Your task to perform on an android device: View the shopping cart on ebay.com. Add "corsair k70" to the cart on ebay.com Image 0: 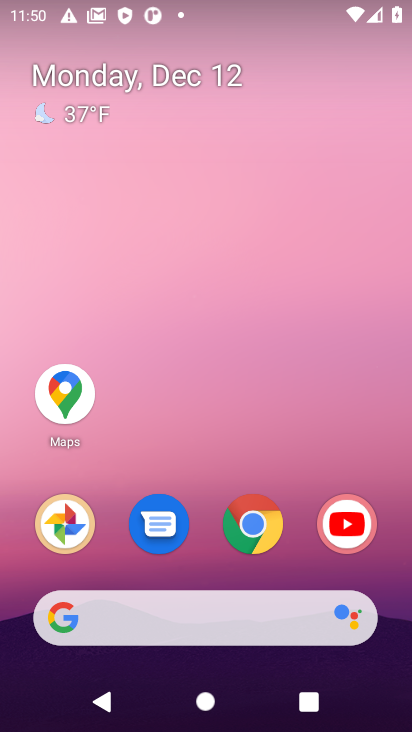
Step 0: click (257, 528)
Your task to perform on an android device: View the shopping cart on ebay.com. Add "corsair k70" to the cart on ebay.com Image 1: 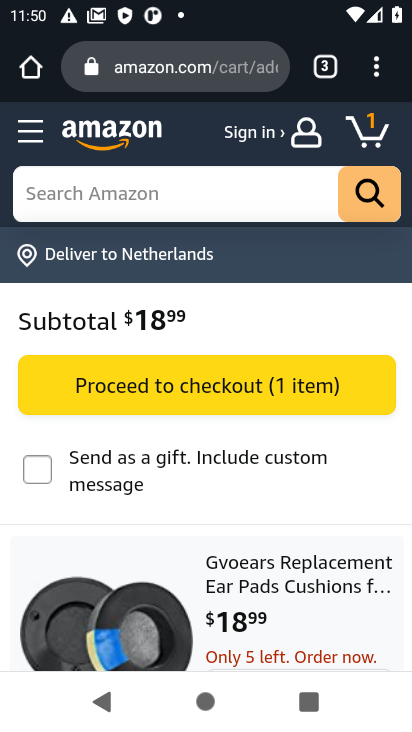
Step 1: click (151, 66)
Your task to perform on an android device: View the shopping cart on ebay.com. Add "corsair k70" to the cart on ebay.com Image 2: 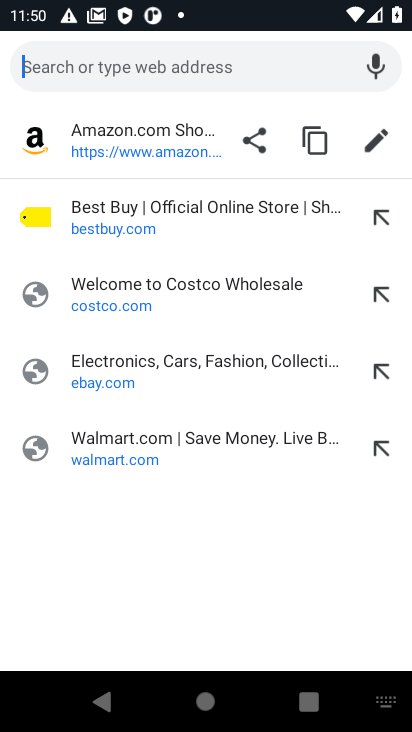
Step 2: click (92, 387)
Your task to perform on an android device: View the shopping cart on ebay.com. Add "corsair k70" to the cart on ebay.com Image 3: 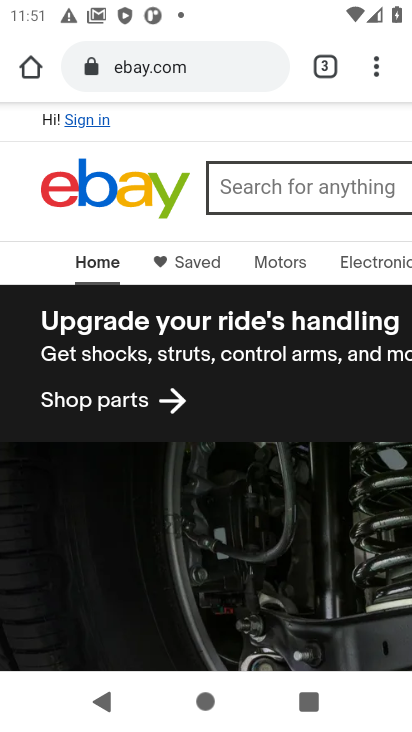
Step 3: drag from (365, 147) to (10, 166)
Your task to perform on an android device: View the shopping cart on ebay.com. Add "corsair k70" to the cart on ebay.com Image 4: 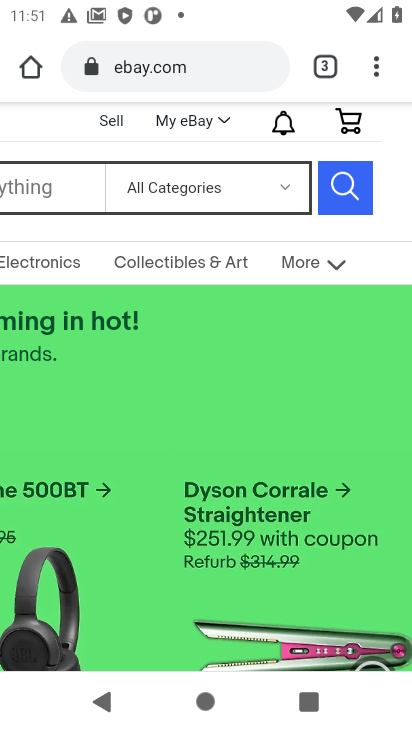
Step 4: click (344, 120)
Your task to perform on an android device: View the shopping cart on ebay.com. Add "corsair k70" to the cart on ebay.com Image 5: 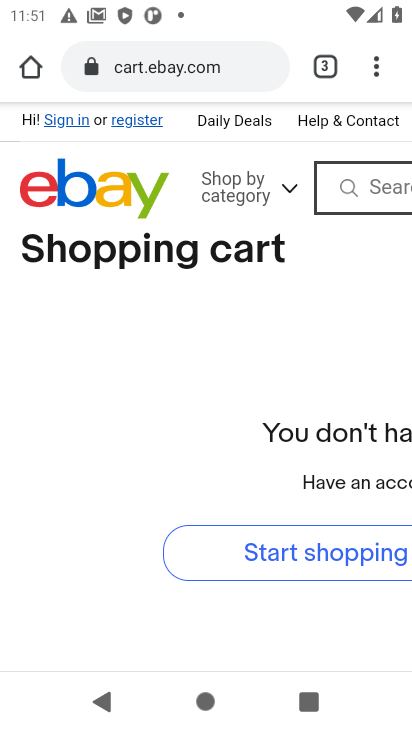
Step 5: click (369, 197)
Your task to perform on an android device: View the shopping cart on ebay.com. Add "corsair k70" to the cart on ebay.com Image 6: 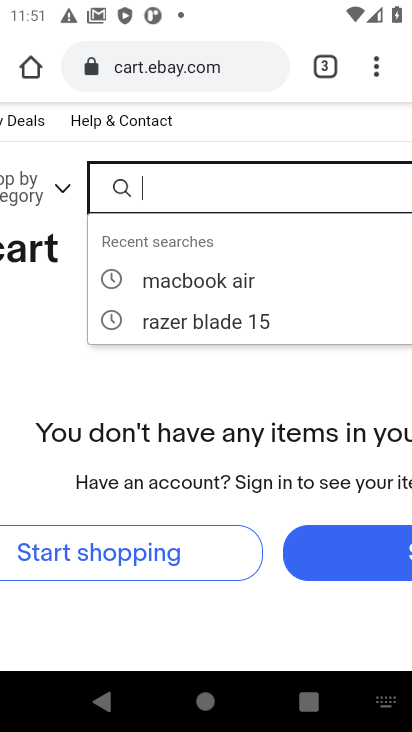
Step 6: type "corsair k70"
Your task to perform on an android device: View the shopping cart on ebay.com. Add "corsair k70" to the cart on ebay.com Image 7: 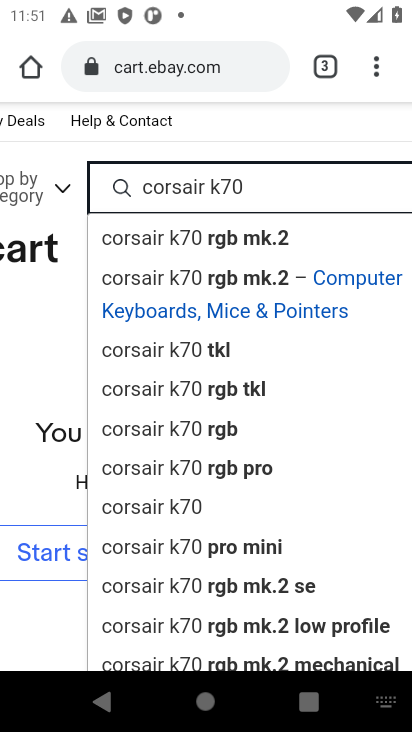
Step 7: click (159, 512)
Your task to perform on an android device: View the shopping cart on ebay.com. Add "corsair k70" to the cart on ebay.com Image 8: 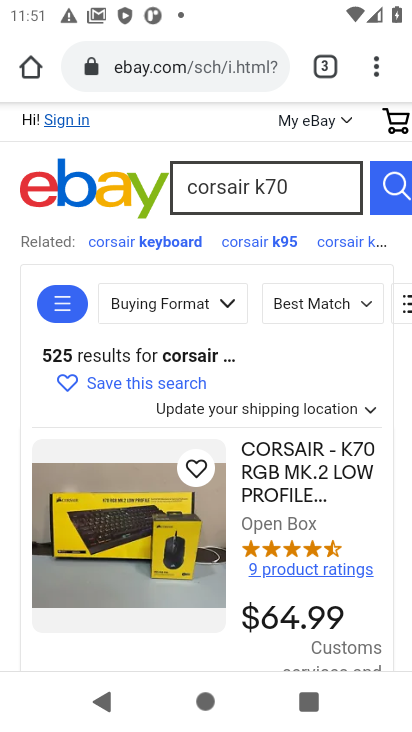
Step 8: drag from (251, 515) to (260, 356)
Your task to perform on an android device: View the shopping cart on ebay.com. Add "corsair k70" to the cart on ebay.com Image 9: 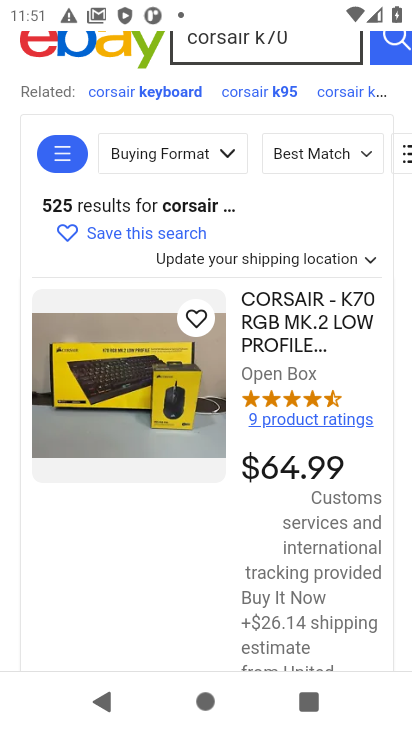
Step 9: click (281, 336)
Your task to perform on an android device: View the shopping cart on ebay.com. Add "corsair k70" to the cart on ebay.com Image 10: 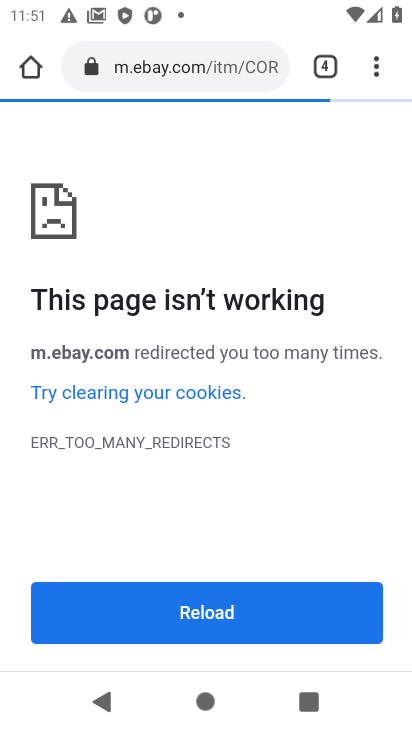
Step 10: task complete